Your task to perform on an android device: delete the emails in spam in the gmail app Image 0: 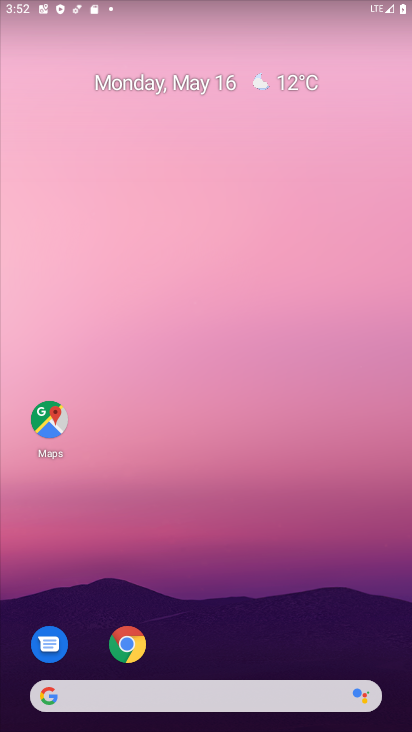
Step 0: drag from (264, 657) to (315, 175)
Your task to perform on an android device: delete the emails in spam in the gmail app Image 1: 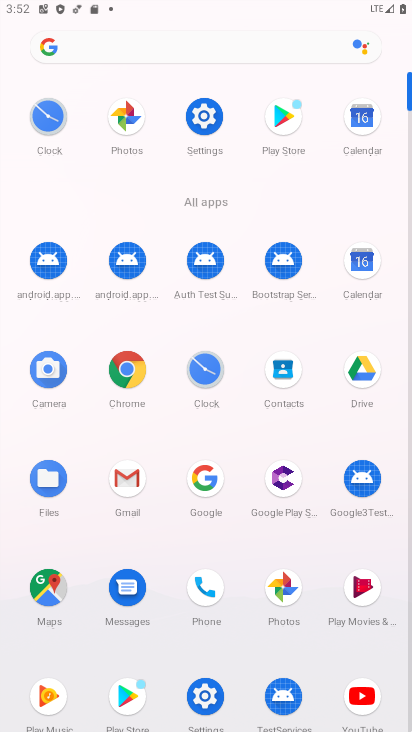
Step 1: click (132, 475)
Your task to perform on an android device: delete the emails in spam in the gmail app Image 2: 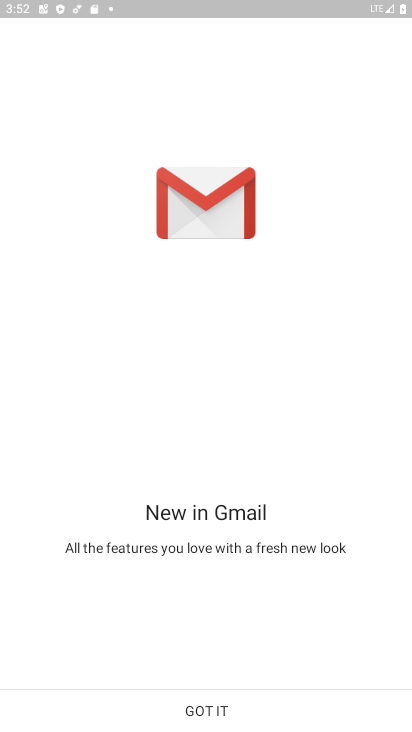
Step 2: click (201, 718)
Your task to perform on an android device: delete the emails in spam in the gmail app Image 3: 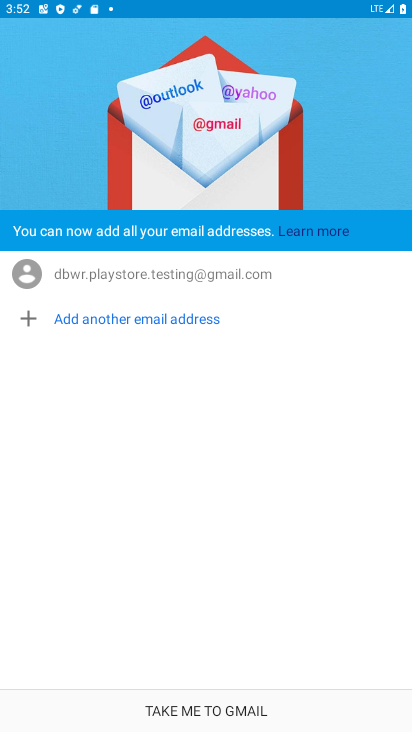
Step 3: click (183, 705)
Your task to perform on an android device: delete the emails in spam in the gmail app Image 4: 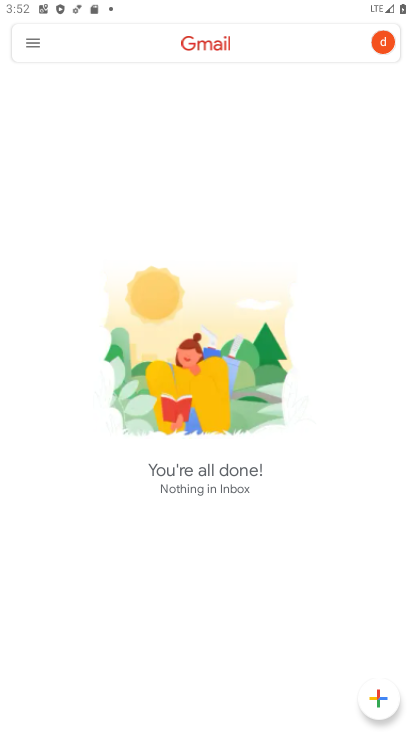
Step 4: click (25, 39)
Your task to perform on an android device: delete the emails in spam in the gmail app Image 5: 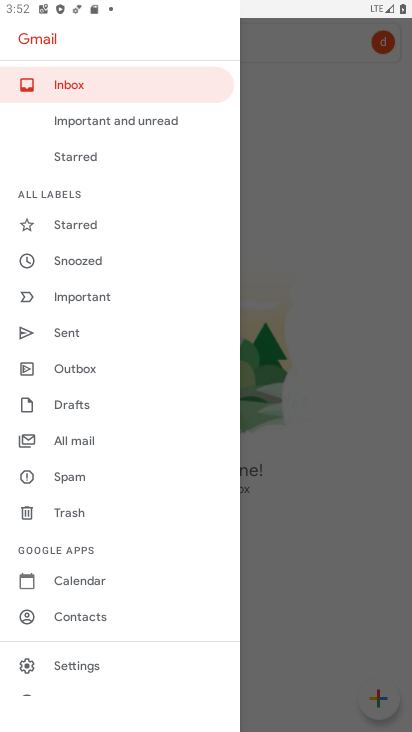
Step 5: click (75, 478)
Your task to perform on an android device: delete the emails in spam in the gmail app Image 6: 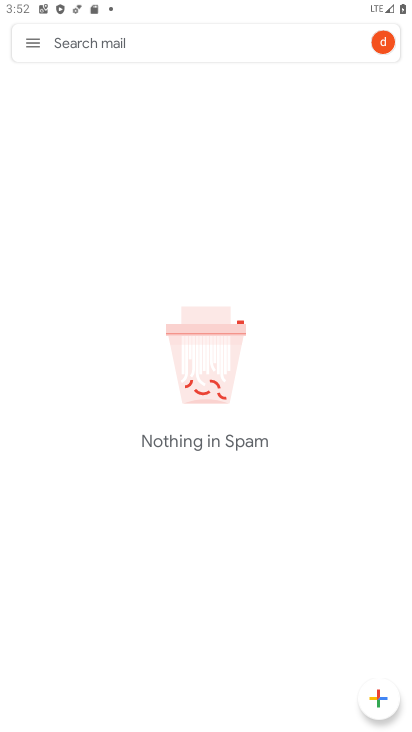
Step 6: task complete